Your task to perform on an android device: Open calendar and show me the third week of next month Image 0: 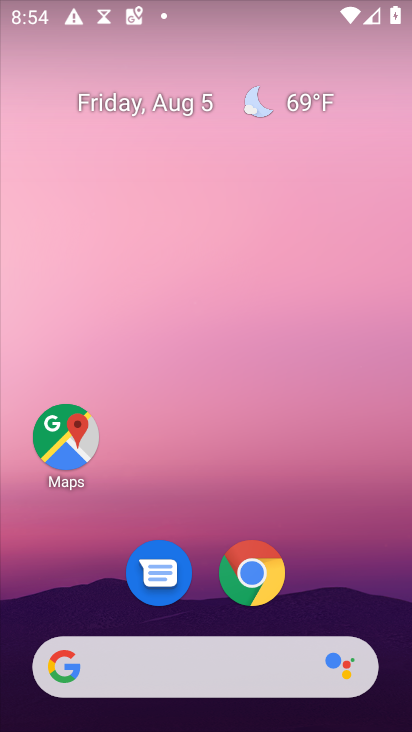
Step 0: drag from (184, 658) to (196, 179)
Your task to perform on an android device: Open calendar and show me the third week of next month Image 1: 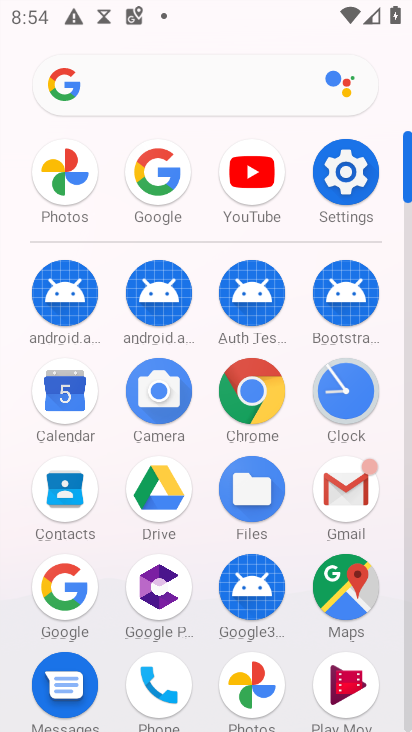
Step 1: click (58, 401)
Your task to perform on an android device: Open calendar and show me the third week of next month Image 2: 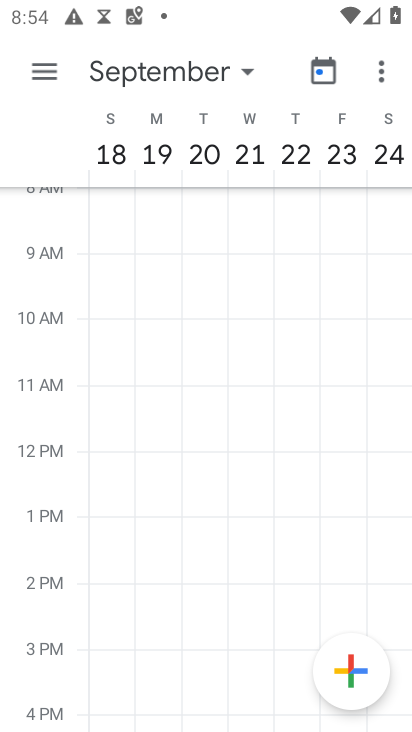
Step 2: click (326, 74)
Your task to perform on an android device: Open calendar and show me the third week of next month Image 3: 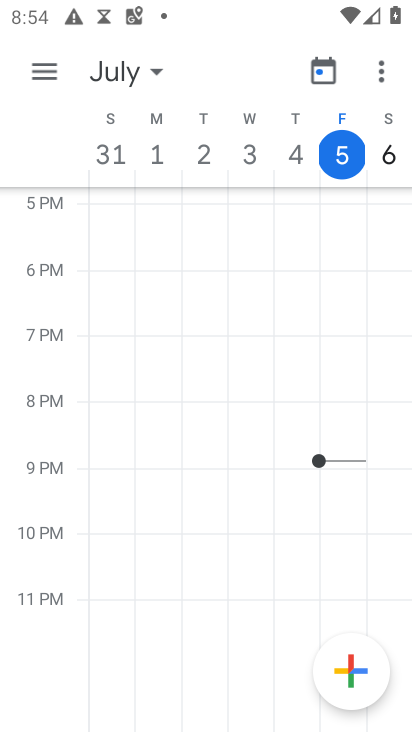
Step 3: click (166, 75)
Your task to perform on an android device: Open calendar and show me the third week of next month Image 4: 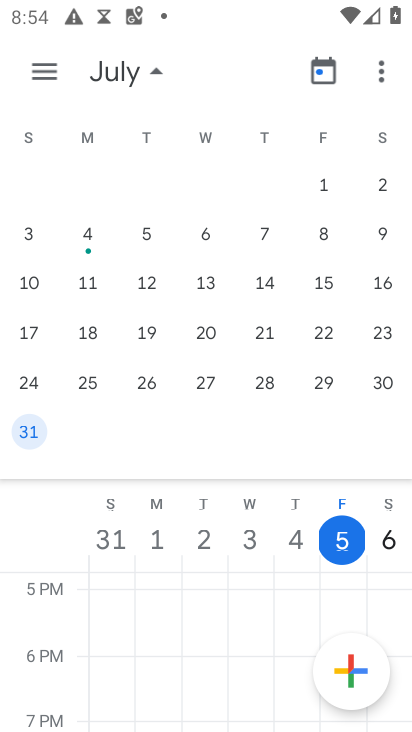
Step 4: drag from (365, 353) to (36, 383)
Your task to perform on an android device: Open calendar and show me the third week of next month Image 5: 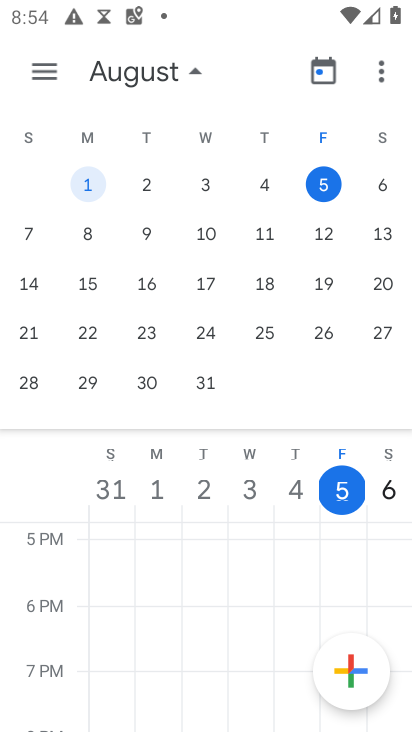
Step 5: drag from (355, 313) to (1, 332)
Your task to perform on an android device: Open calendar and show me the third week of next month Image 6: 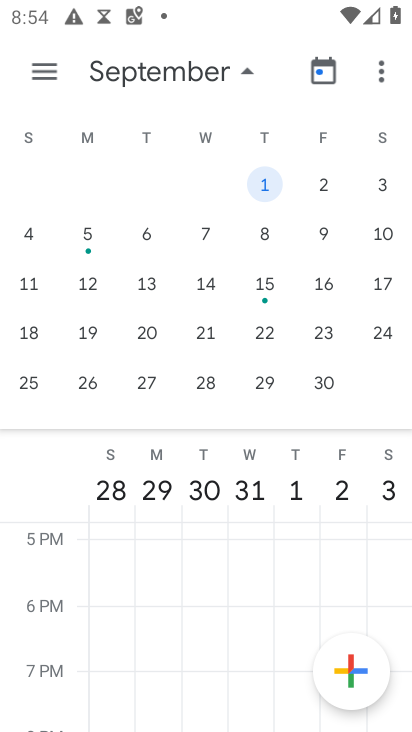
Step 6: click (77, 328)
Your task to perform on an android device: Open calendar and show me the third week of next month Image 7: 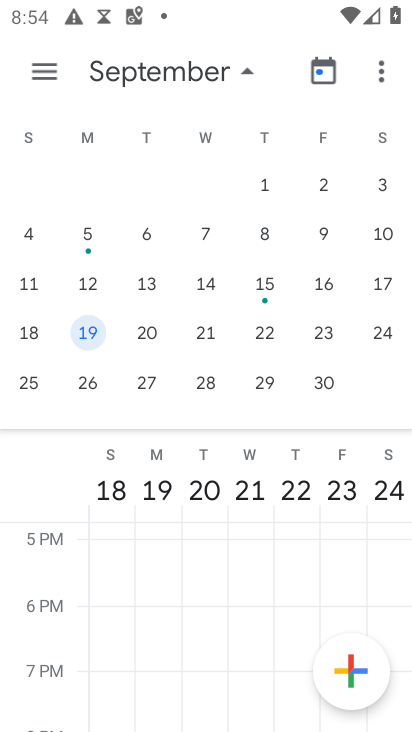
Step 7: click (24, 70)
Your task to perform on an android device: Open calendar and show me the third week of next month Image 8: 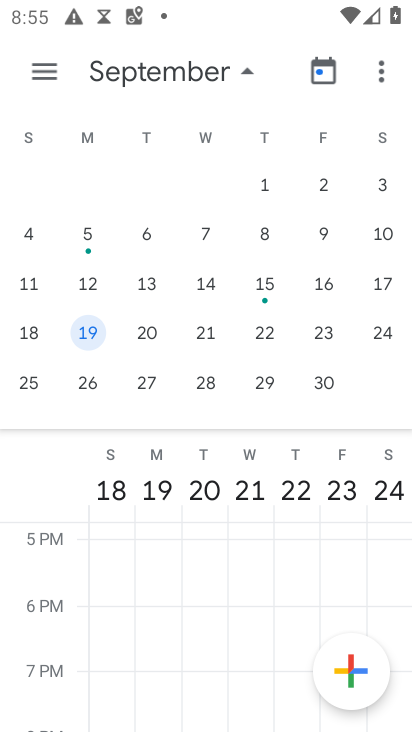
Step 8: click (41, 74)
Your task to perform on an android device: Open calendar and show me the third week of next month Image 9: 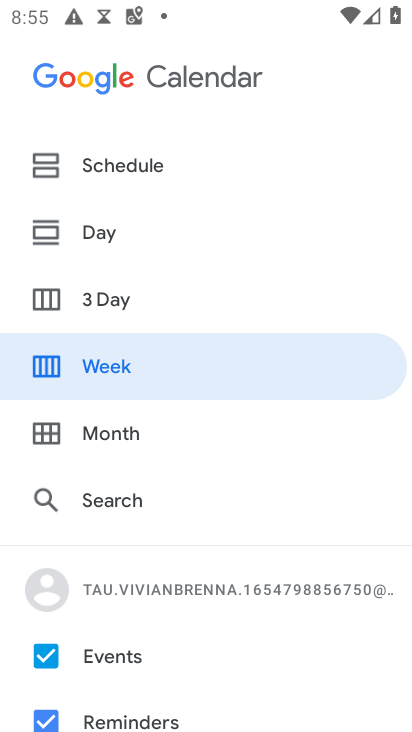
Step 9: click (113, 358)
Your task to perform on an android device: Open calendar and show me the third week of next month Image 10: 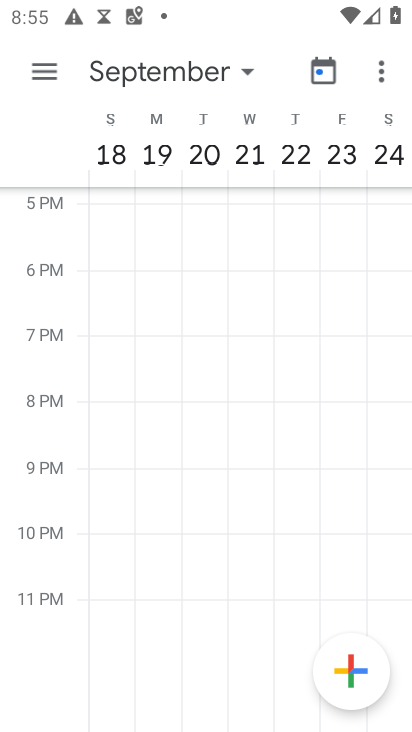
Step 10: task complete